Your task to perform on an android device: Open Maps and search for coffee Image 0: 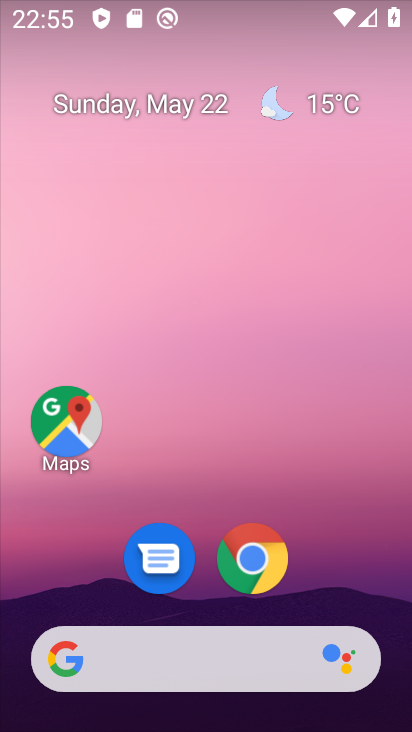
Step 0: click (65, 423)
Your task to perform on an android device: Open Maps and search for coffee Image 1: 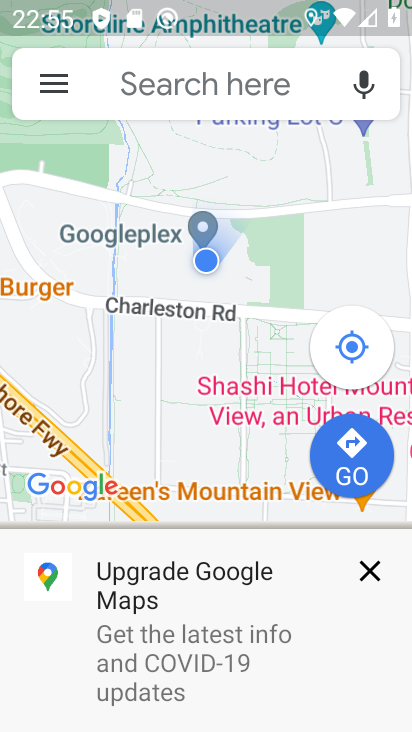
Step 1: click (125, 87)
Your task to perform on an android device: Open Maps and search for coffee Image 2: 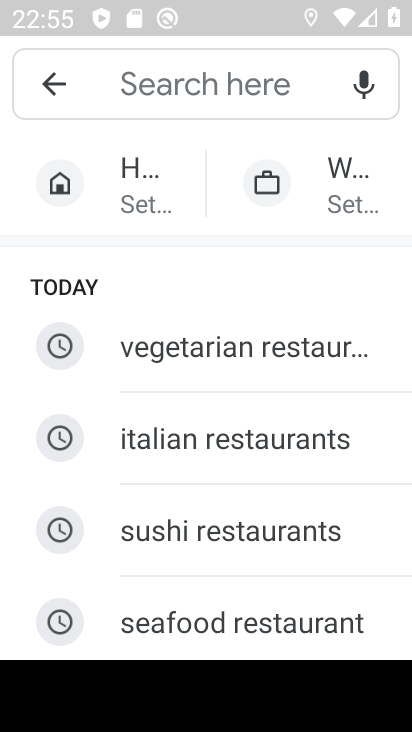
Step 2: type "coffee"
Your task to perform on an android device: Open Maps and search for coffee Image 3: 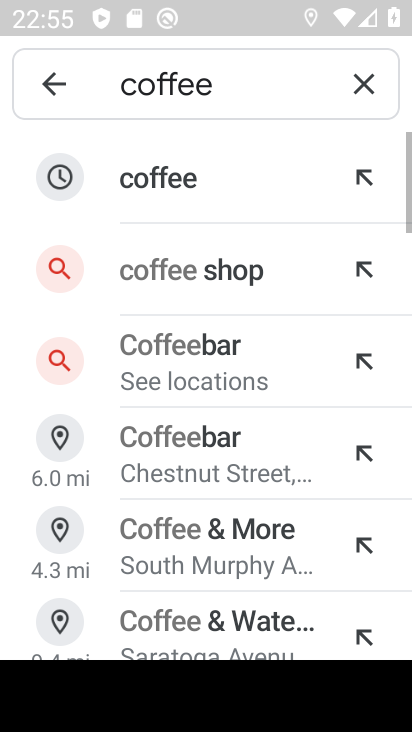
Step 3: click (156, 177)
Your task to perform on an android device: Open Maps and search for coffee Image 4: 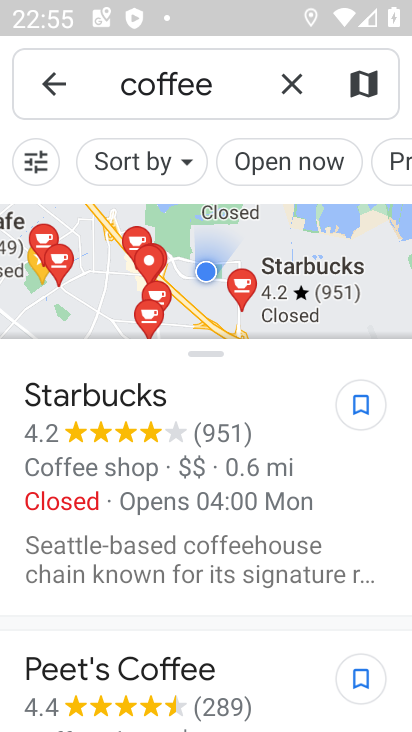
Step 4: task complete